Your task to perform on an android device: turn notification dots on Image 0: 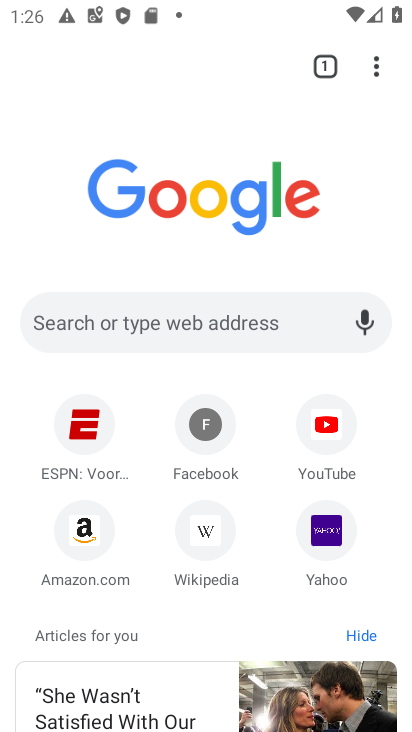
Step 0: press home button
Your task to perform on an android device: turn notification dots on Image 1: 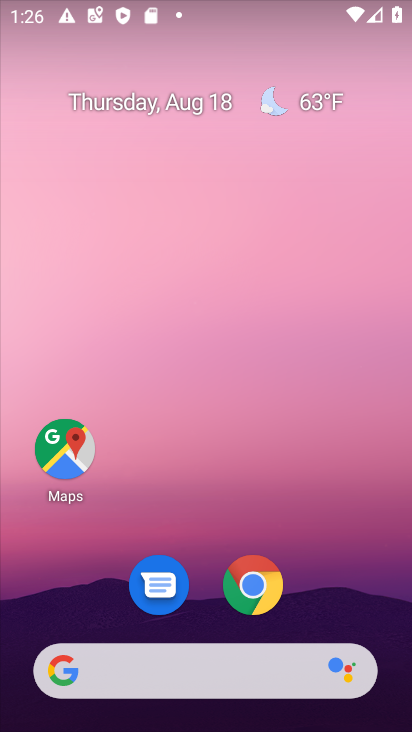
Step 1: drag from (215, 526) to (256, 0)
Your task to perform on an android device: turn notification dots on Image 2: 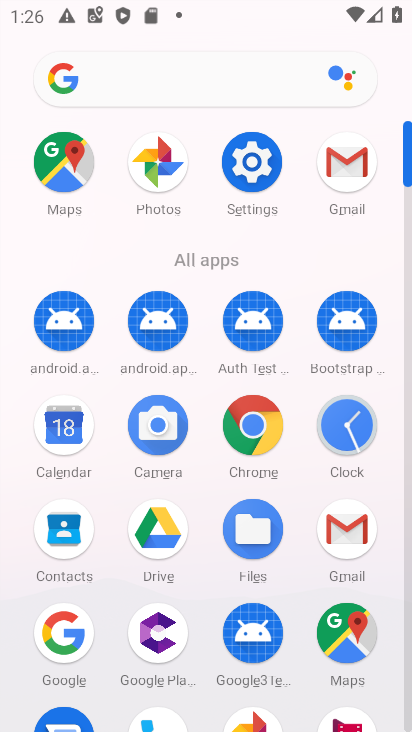
Step 2: click (253, 157)
Your task to perform on an android device: turn notification dots on Image 3: 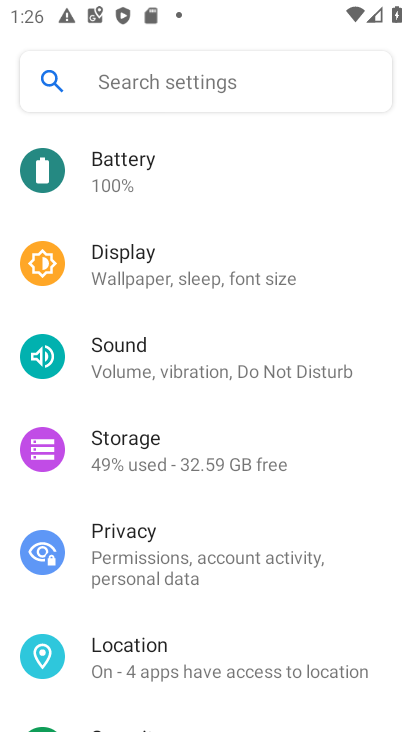
Step 3: drag from (232, 243) to (229, 638)
Your task to perform on an android device: turn notification dots on Image 4: 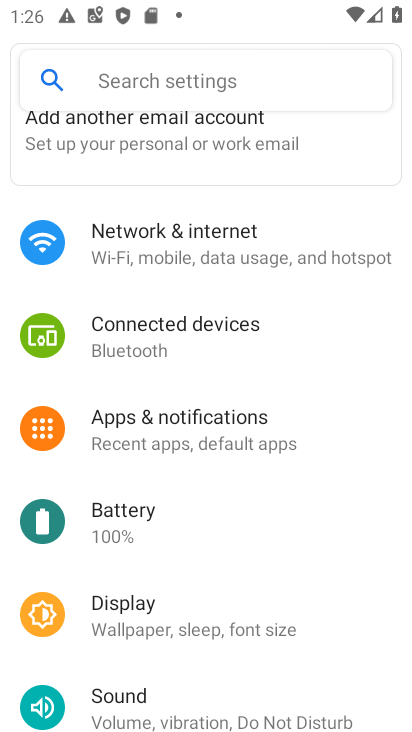
Step 4: click (236, 428)
Your task to perform on an android device: turn notification dots on Image 5: 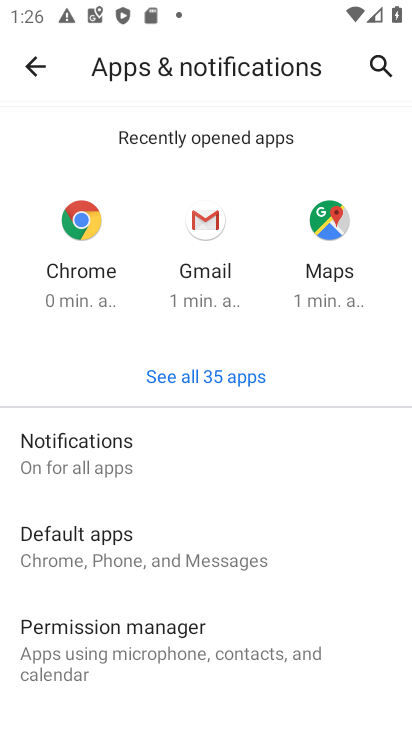
Step 5: click (119, 449)
Your task to perform on an android device: turn notification dots on Image 6: 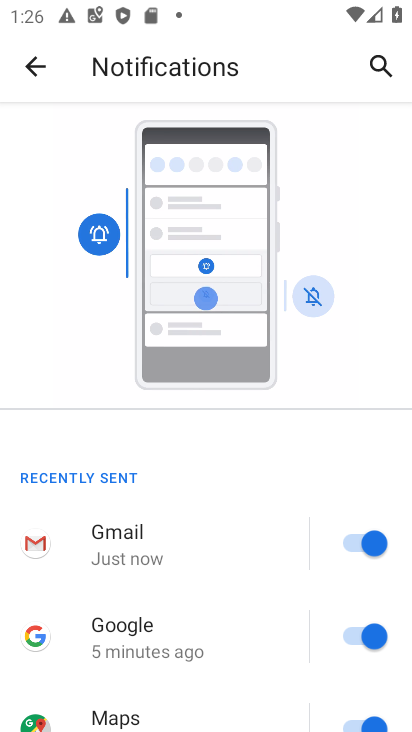
Step 6: drag from (225, 600) to (248, 63)
Your task to perform on an android device: turn notification dots on Image 7: 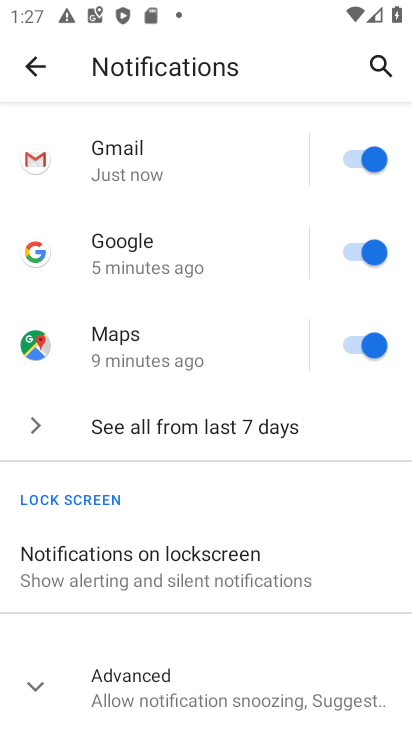
Step 7: click (26, 679)
Your task to perform on an android device: turn notification dots on Image 8: 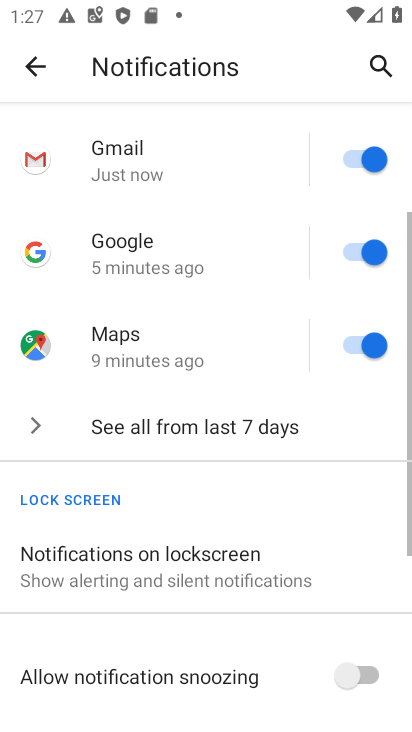
Step 8: task complete